Your task to perform on an android device: install app "Google Translate" Image 0: 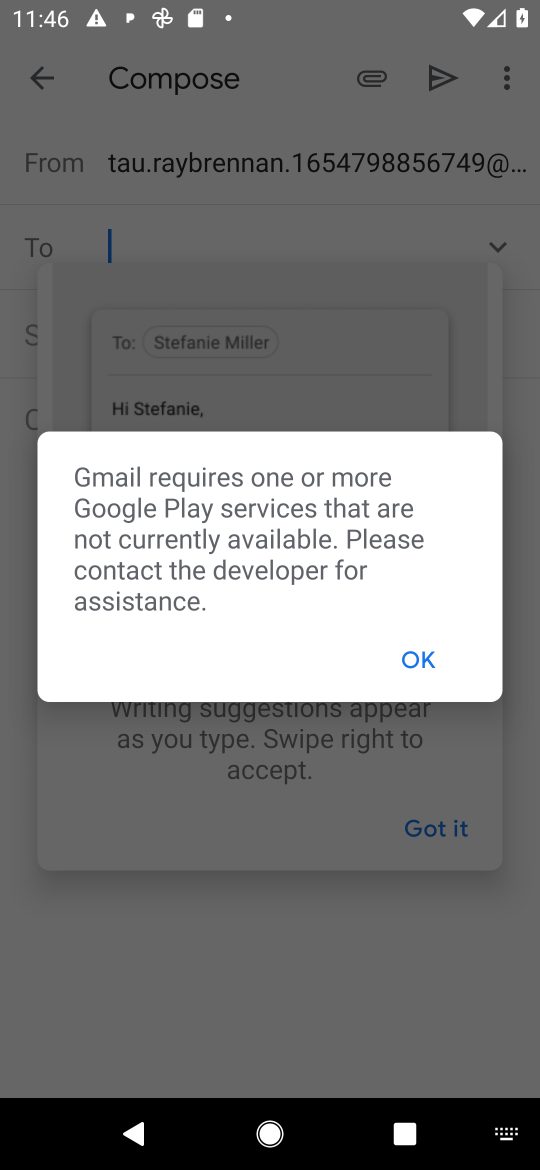
Step 0: press home button
Your task to perform on an android device: install app "Google Translate" Image 1: 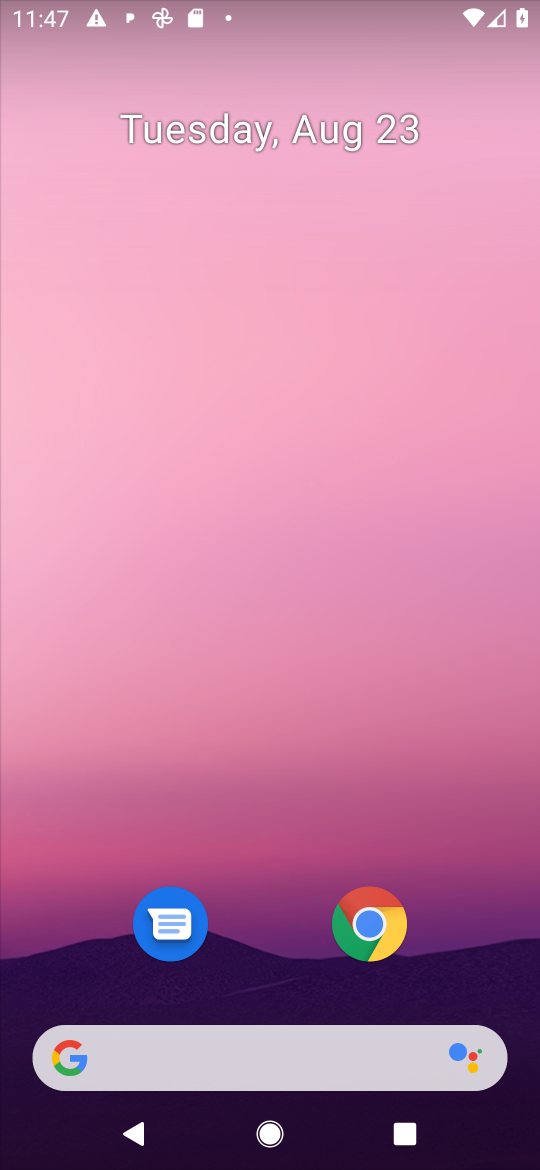
Step 1: drag from (453, 866) to (448, 122)
Your task to perform on an android device: install app "Google Translate" Image 2: 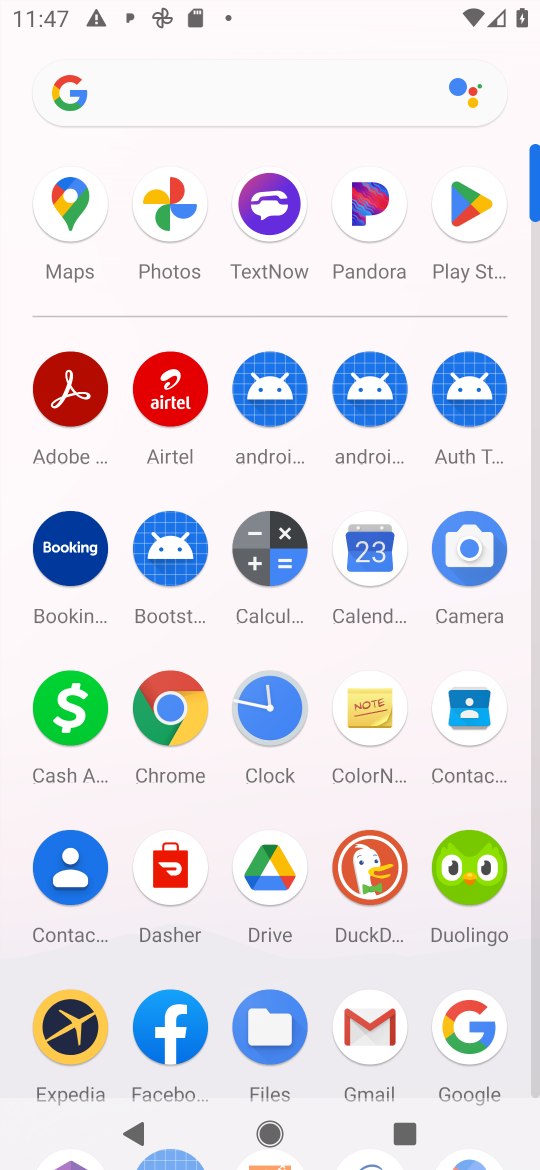
Step 2: click (465, 213)
Your task to perform on an android device: install app "Google Translate" Image 3: 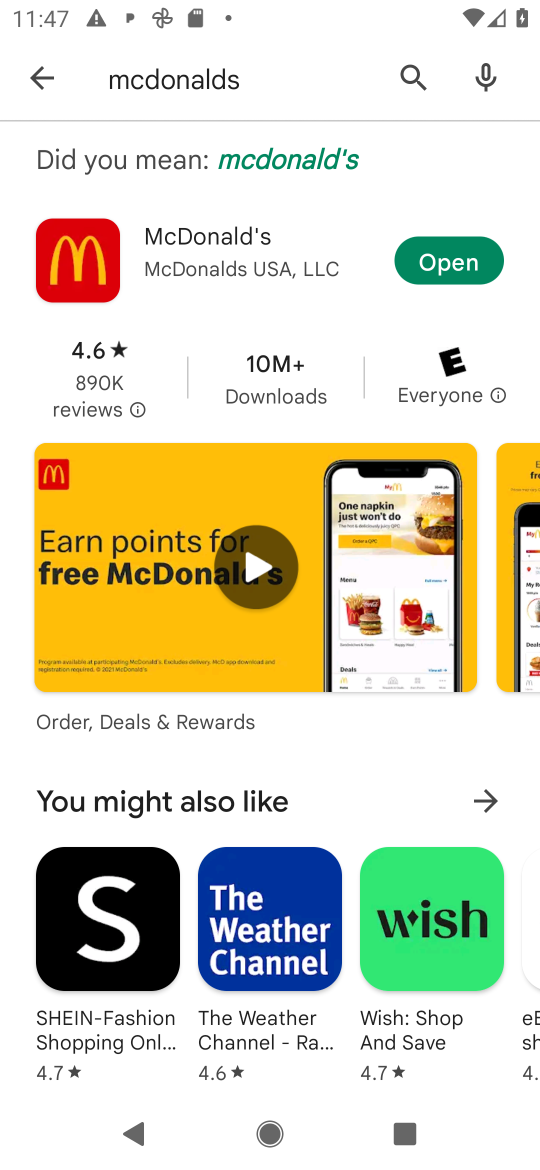
Step 3: press back button
Your task to perform on an android device: install app "Google Translate" Image 4: 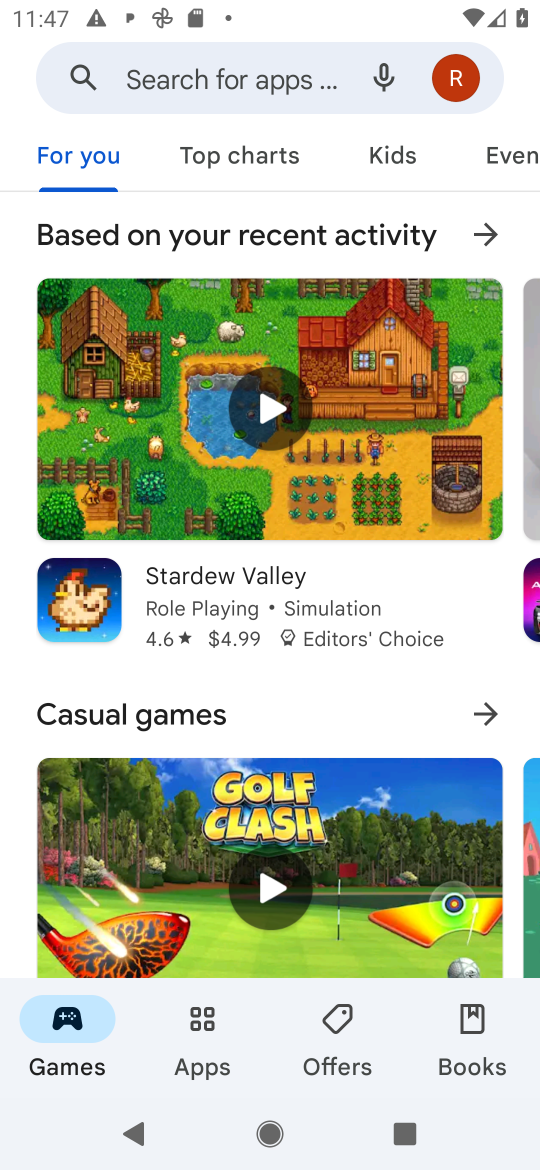
Step 4: click (212, 78)
Your task to perform on an android device: install app "Google Translate" Image 5: 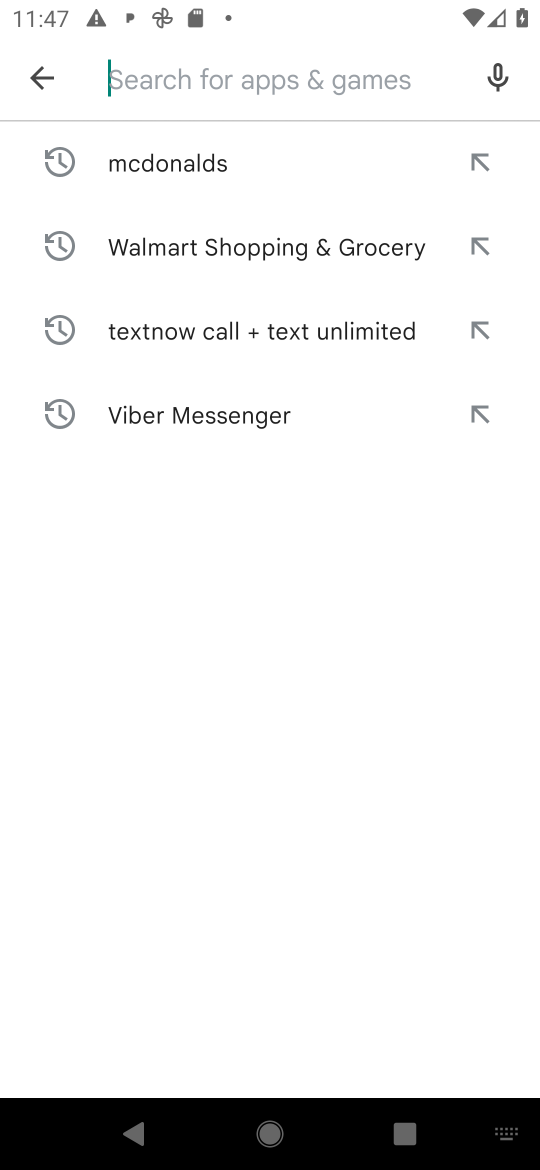
Step 5: type "Google Translate"
Your task to perform on an android device: install app "Google Translate" Image 6: 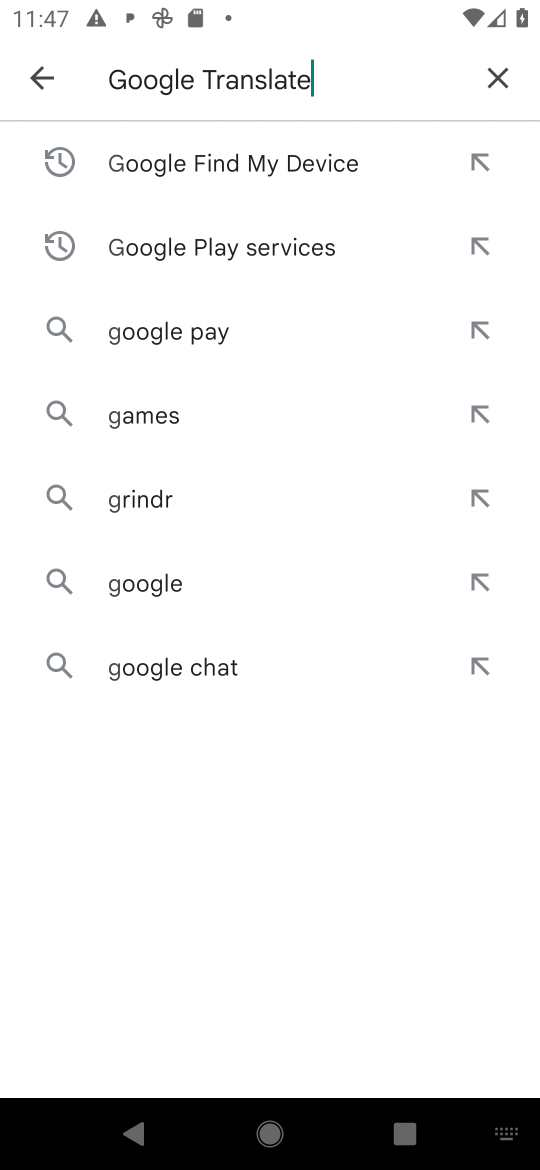
Step 6: press enter
Your task to perform on an android device: install app "Google Translate" Image 7: 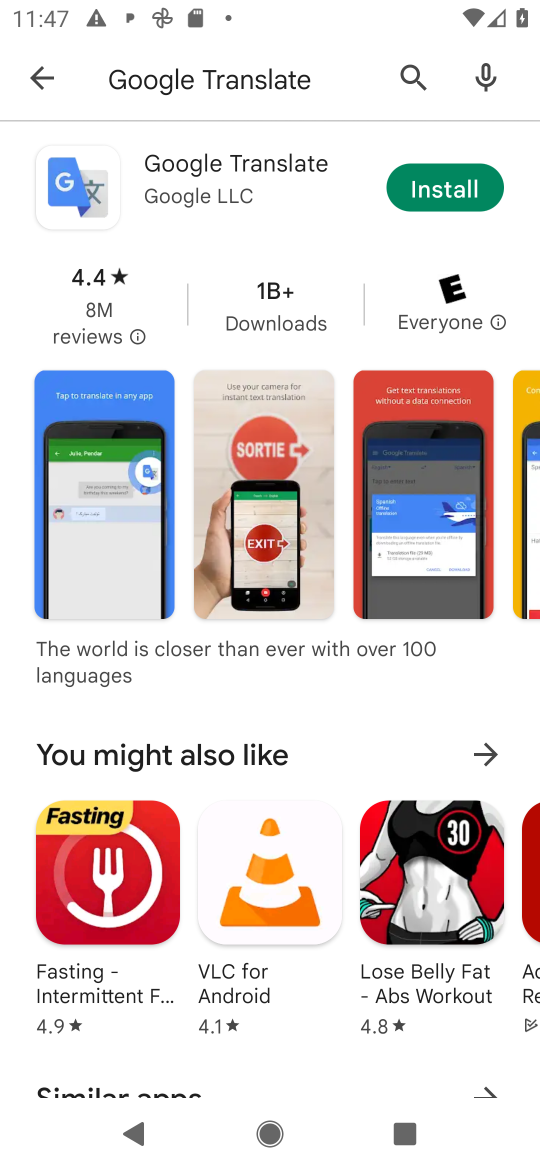
Step 7: click (453, 187)
Your task to perform on an android device: install app "Google Translate" Image 8: 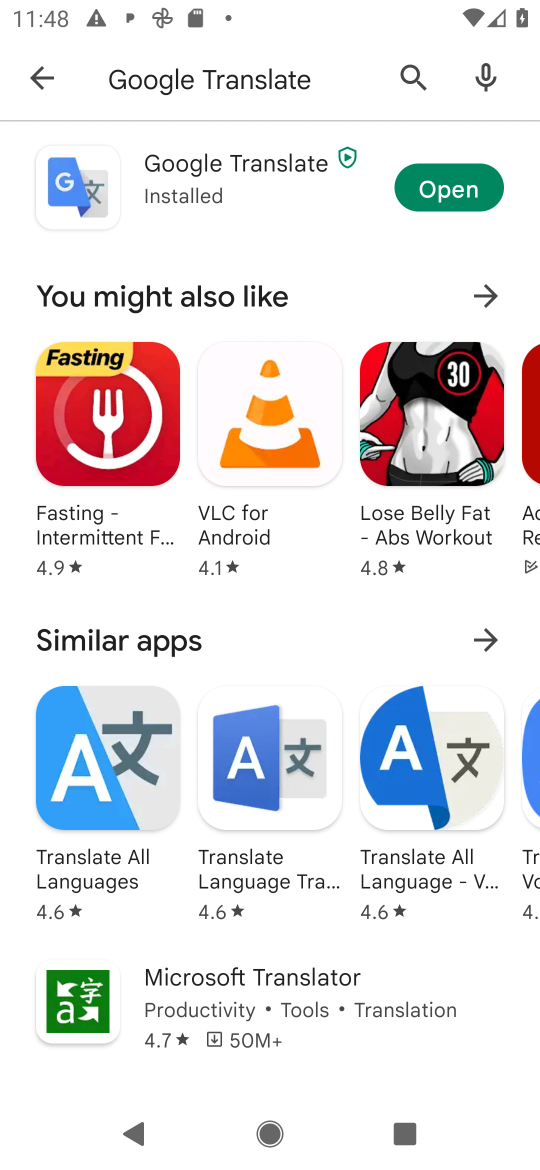
Step 8: task complete